Your task to perform on an android device: create a new album in the google photos Image 0: 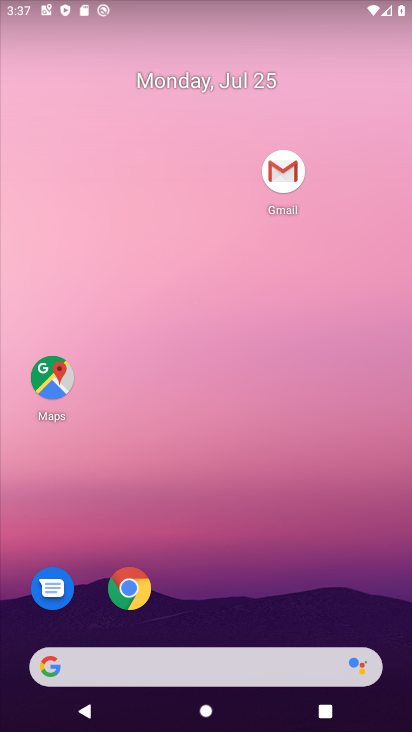
Step 0: drag from (256, 542) to (184, 92)
Your task to perform on an android device: create a new album in the google photos Image 1: 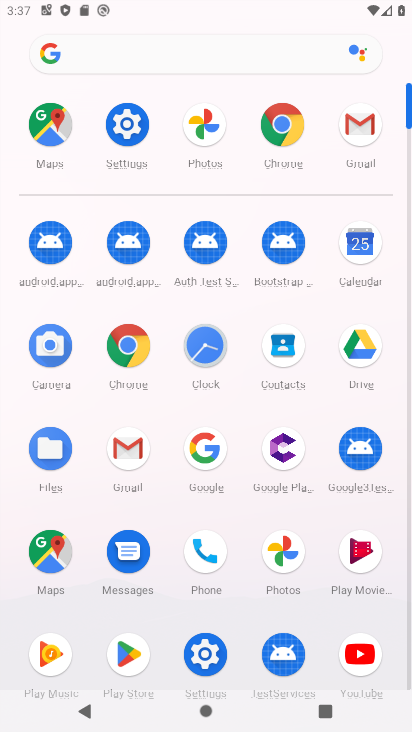
Step 1: click (213, 127)
Your task to perform on an android device: create a new album in the google photos Image 2: 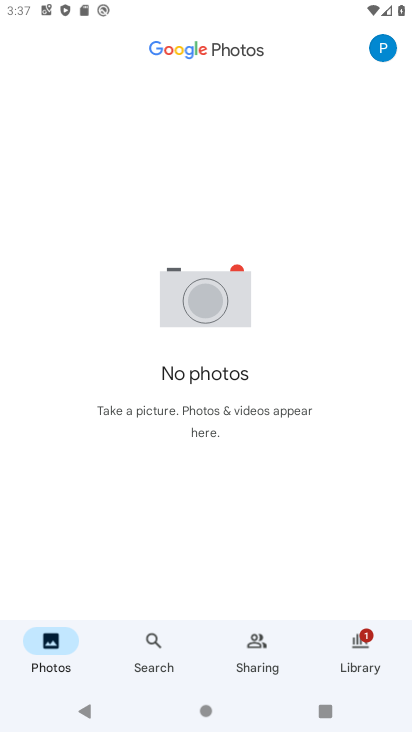
Step 2: click (385, 659)
Your task to perform on an android device: create a new album in the google photos Image 3: 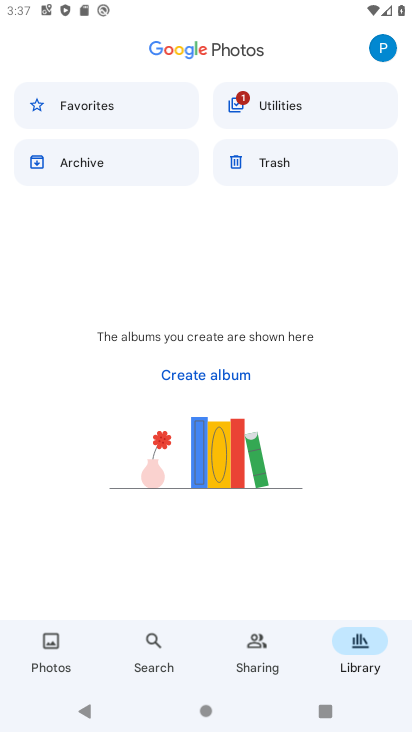
Step 3: click (212, 368)
Your task to perform on an android device: create a new album in the google photos Image 4: 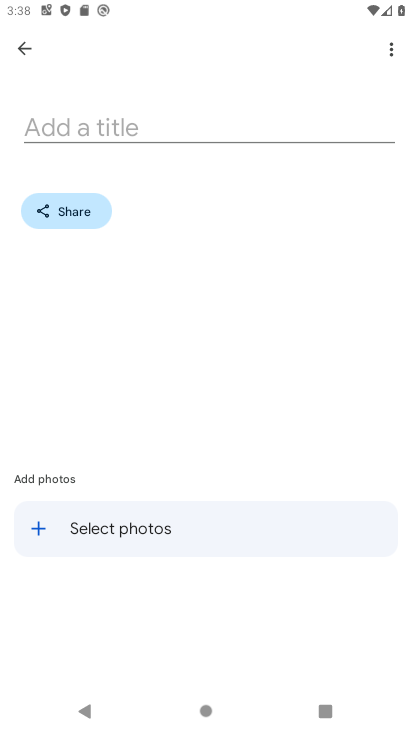
Step 4: click (225, 127)
Your task to perform on an android device: create a new album in the google photos Image 5: 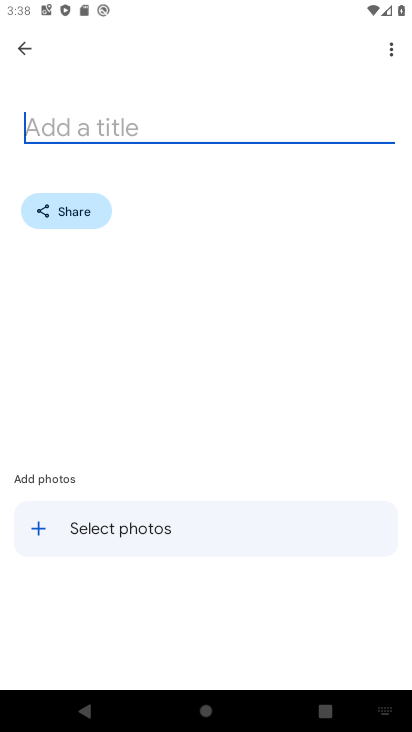
Step 5: type "horror story"
Your task to perform on an android device: create a new album in the google photos Image 6: 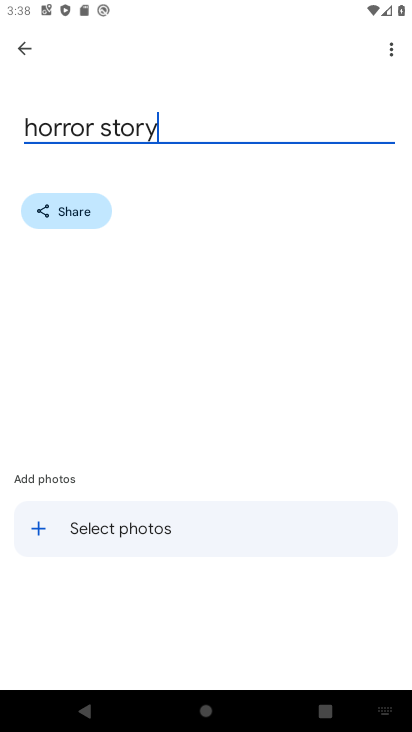
Step 6: click (271, 342)
Your task to perform on an android device: create a new album in the google photos Image 7: 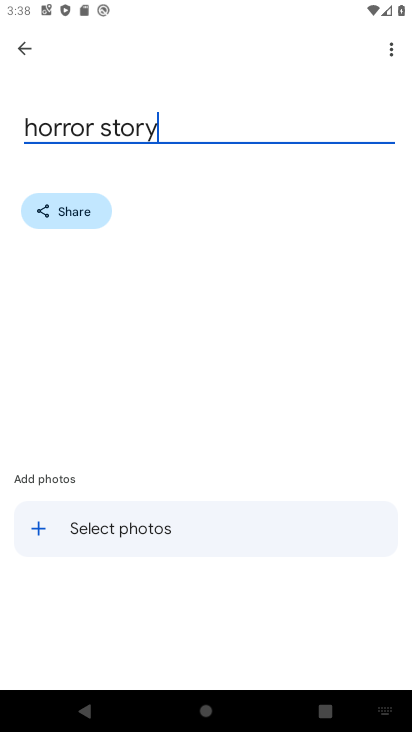
Step 7: click (20, 46)
Your task to perform on an android device: create a new album in the google photos Image 8: 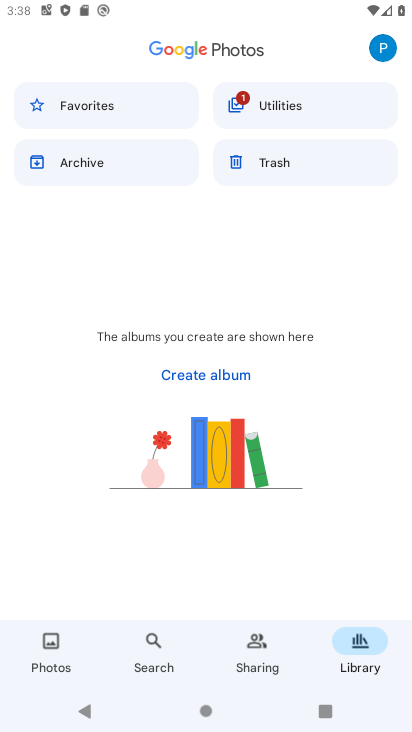
Step 8: click (275, 112)
Your task to perform on an android device: create a new album in the google photos Image 9: 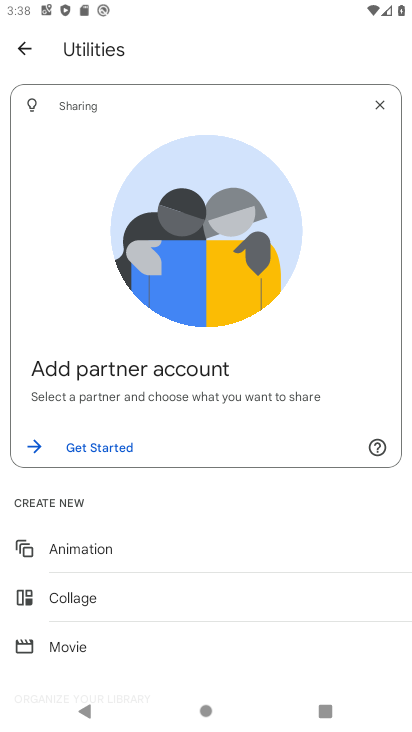
Step 9: task complete